Your task to perform on an android device: What is the news today? Image 0: 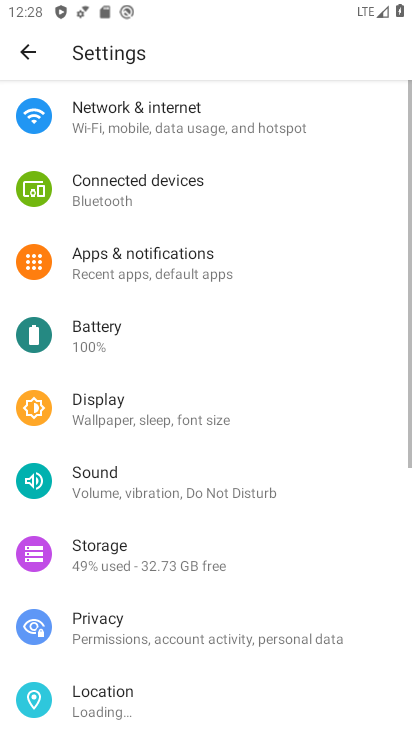
Step 0: press home button
Your task to perform on an android device: What is the news today? Image 1: 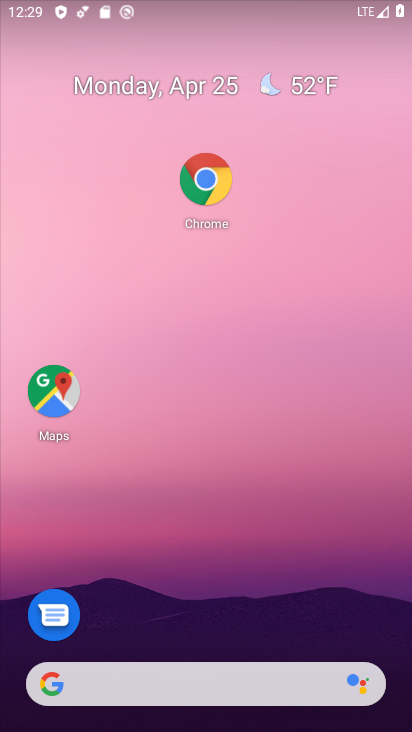
Step 1: drag from (184, 681) to (288, 107)
Your task to perform on an android device: What is the news today? Image 2: 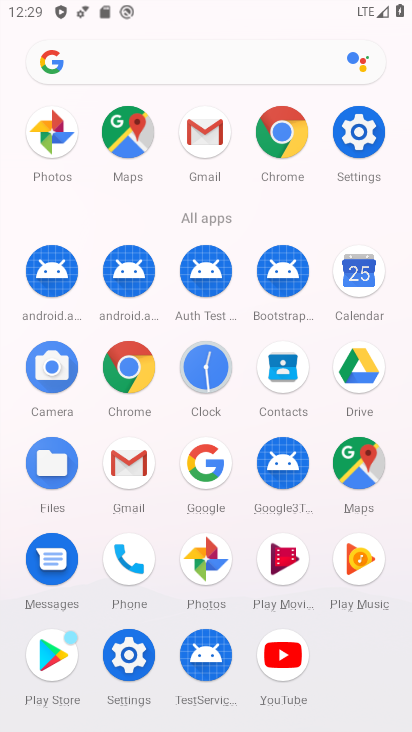
Step 2: click (210, 468)
Your task to perform on an android device: What is the news today? Image 3: 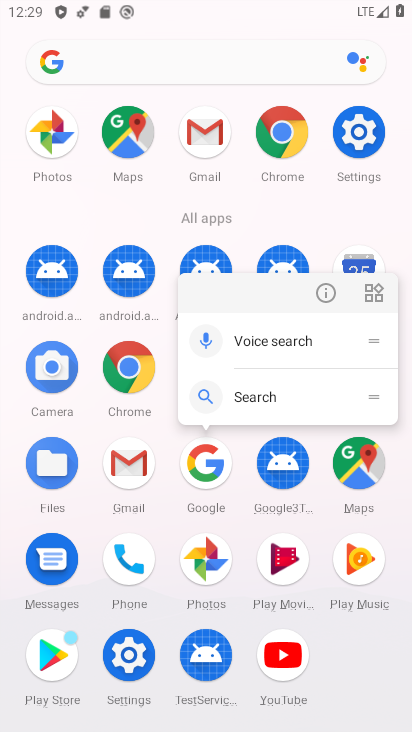
Step 3: click (195, 475)
Your task to perform on an android device: What is the news today? Image 4: 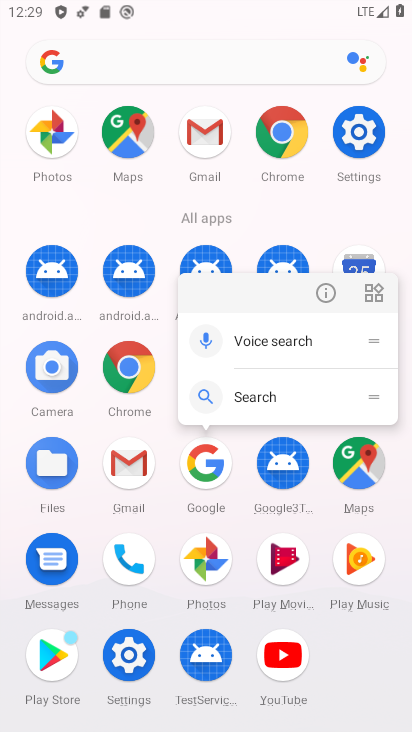
Step 4: click (212, 458)
Your task to perform on an android device: What is the news today? Image 5: 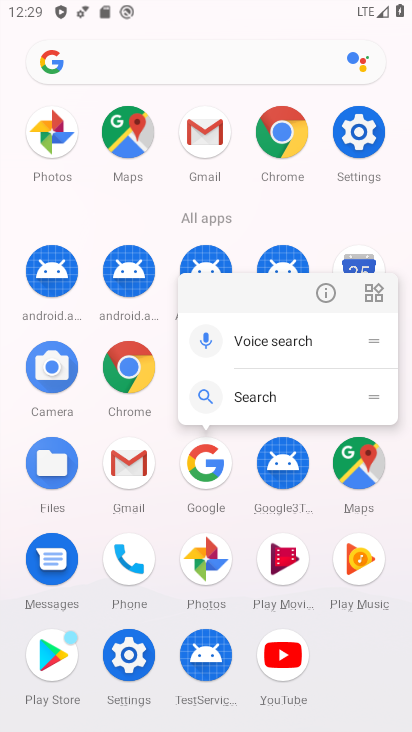
Step 5: click (192, 470)
Your task to perform on an android device: What is the news today? Image 6: 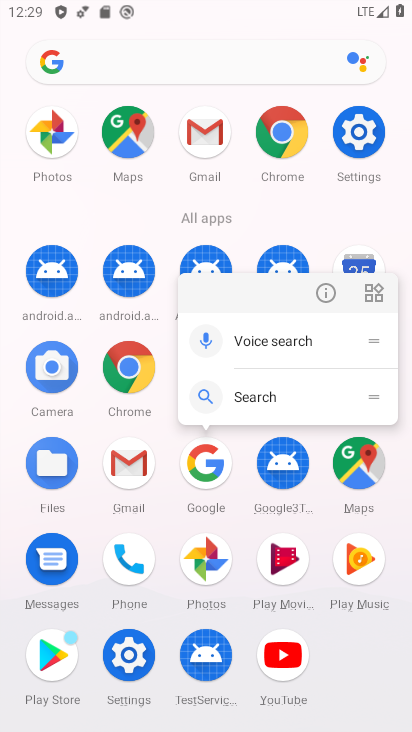
Step 6: click (210, 467)
Your task to perform on an android device: What is the news today? Image 7: 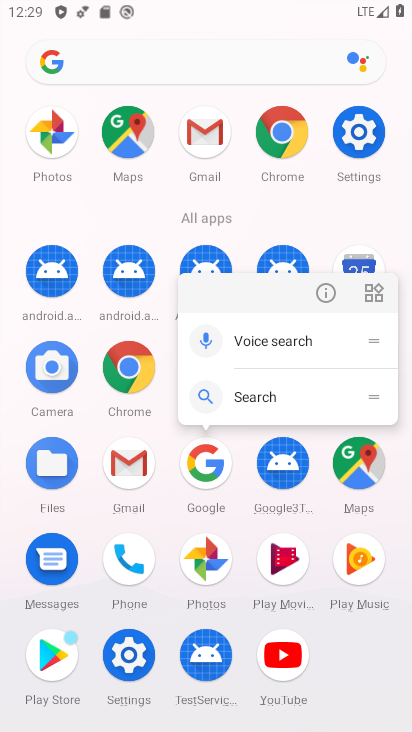
Step 7: click (210, 475)
Your task to perform on an android device: What is the news today? Image 8: 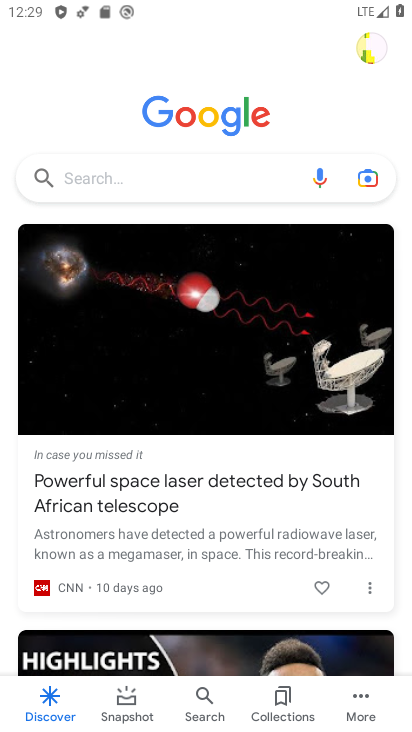
Step 8: task complete